Your task to perform on an android device: see tabs open on other devices in the chrome app Image 0: 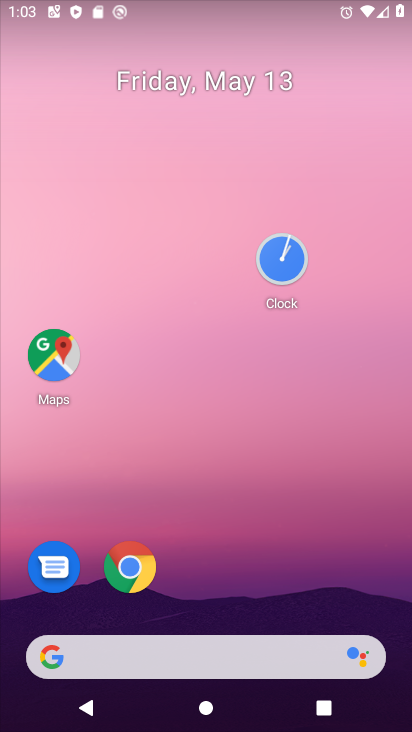
Step 0: click (140, 582)
Your task to perform on an android device: see tabs open on other devices in the chrome app Image 1: 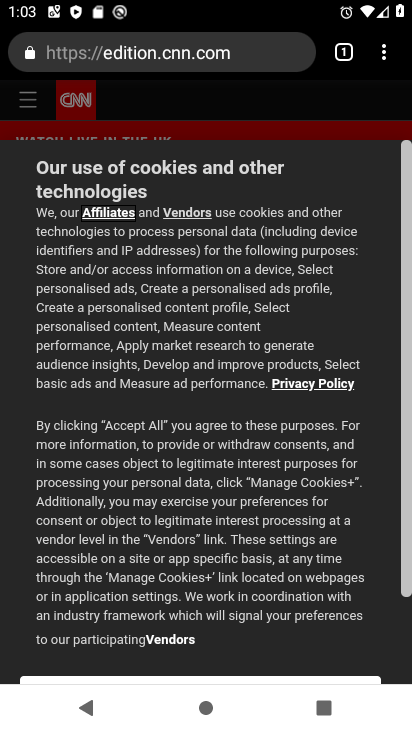
Step 1: click (381, 60)
Your task to perform on an android device: see tabs open on other devices in the chrome app Image 2: 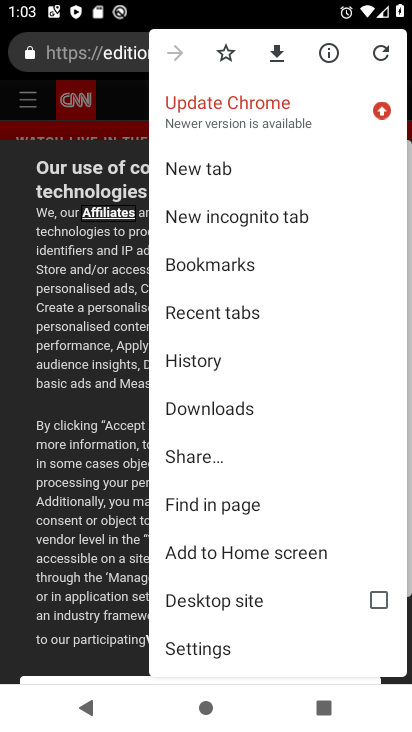
Step 2: click (250, 306)
Your task to perform on an android device: see tabs open on other devices in the chrome app Image 3: 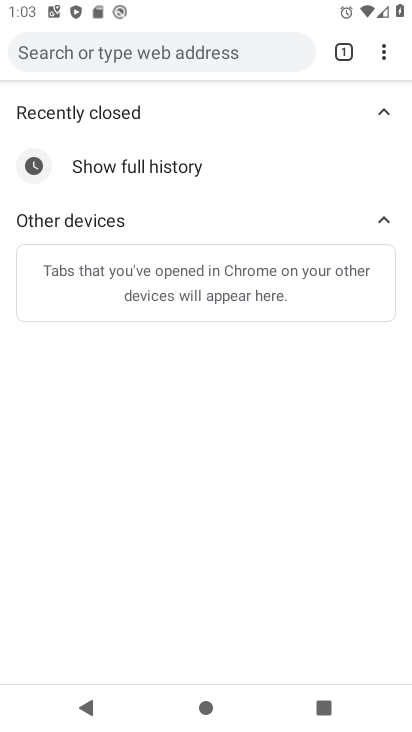
Step 3: task complete